Your task to perform on an android device: Play the last video I watched on Youtube Image 0: 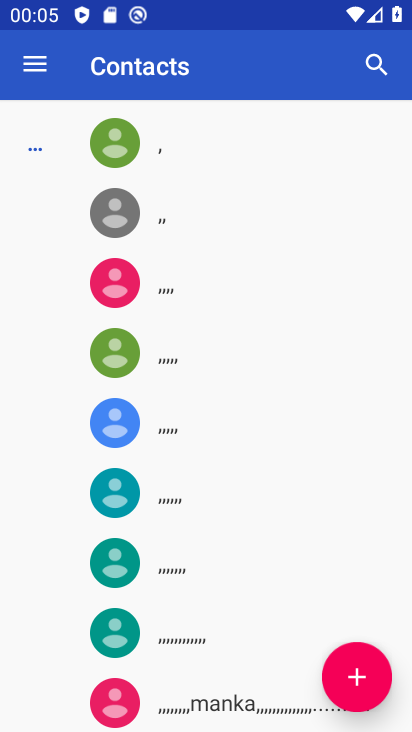
Step 0: press home button
Your task to perform on an android device: Play the last video I watched on Youtube Image 1: 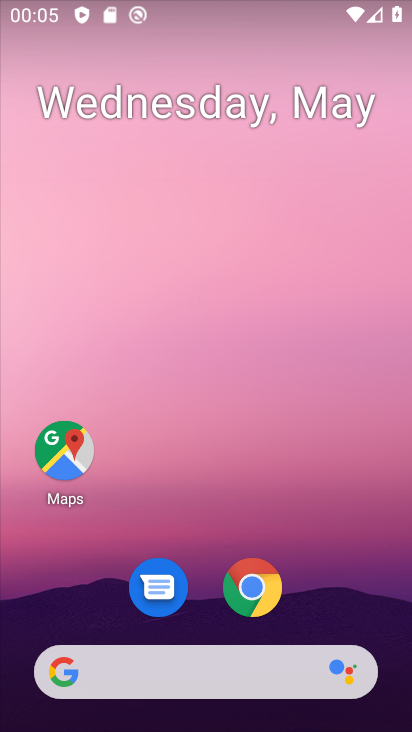
Step 1: drag from (344, 574) to (293, 93)
Your task to perform on an android device: Play the last video I watched on Youtube Image 2: 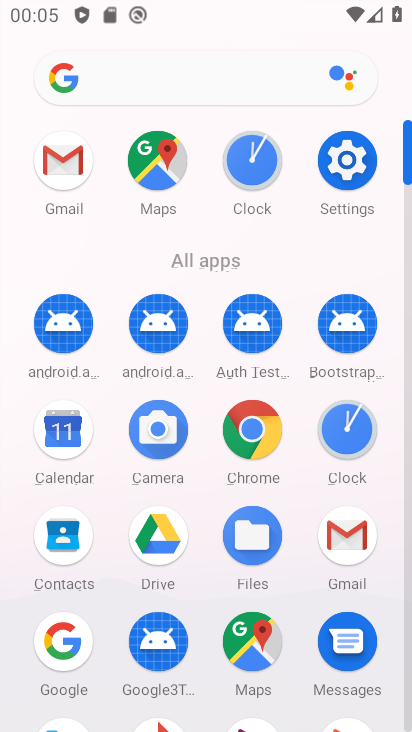
Step 2: drag from (295, 250) to (261, 21)
Your task to perform on an android device: Play the last video I watched on Youtube Image 3: 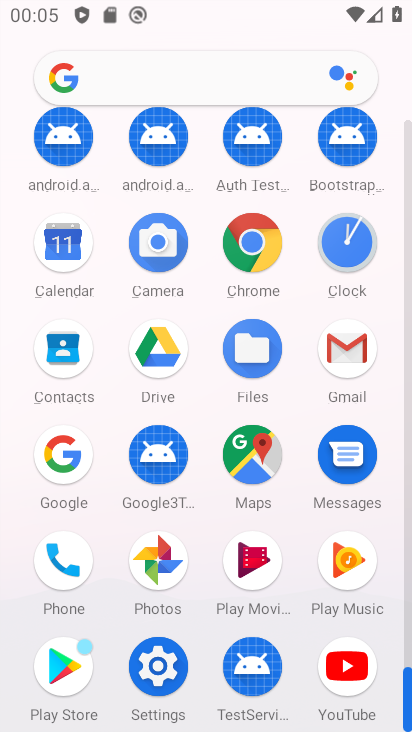
Step 3: click (331, 669)
Your task to perform on an android device: Play the last video I watched on Youtube Image 4: 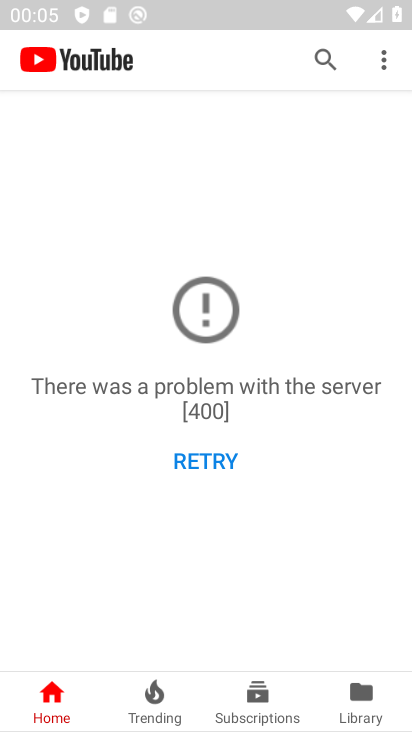
Step 4: click (344, 694)
Your task to perform on an android device: Play the last video I watched on Youtube Image 5: 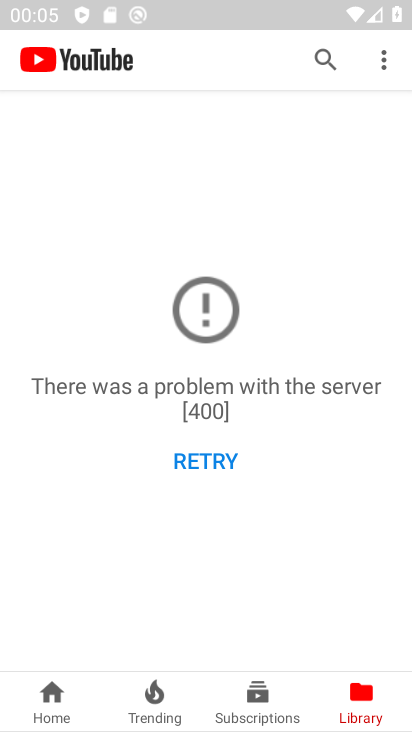
Step 5: click (224, 461)
Your task to perform on an android device: Play the last video I watched on Youtube Image 6: 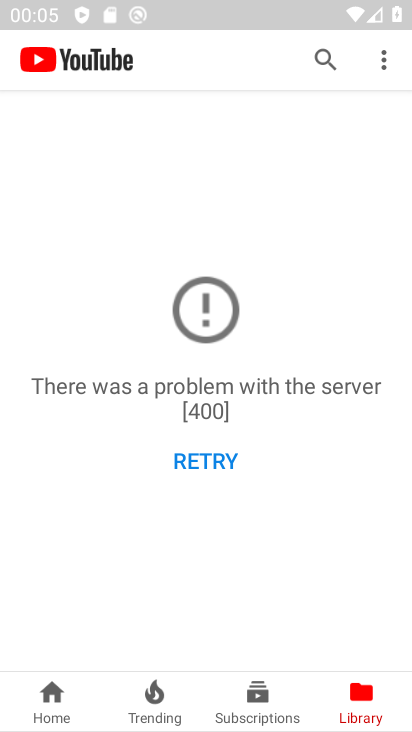
Step 6: click (224, 461)
Your task to perform on an android device: Play the last video I watched on Youtube Image 7: 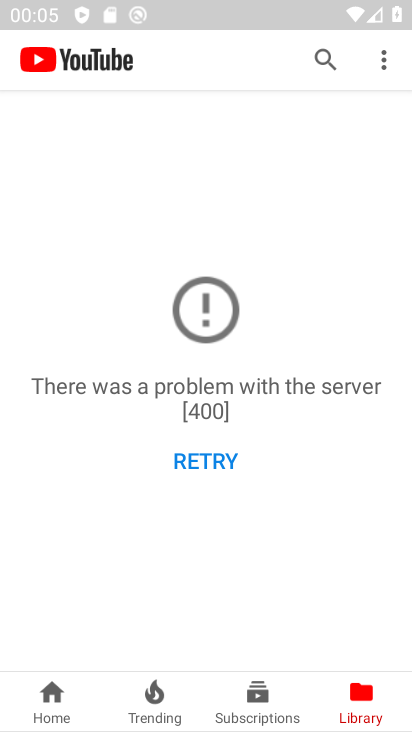
Step 7: click (224, 461)
Your task to perform on an android device: Play the last video I watched on Youtube Image 8: 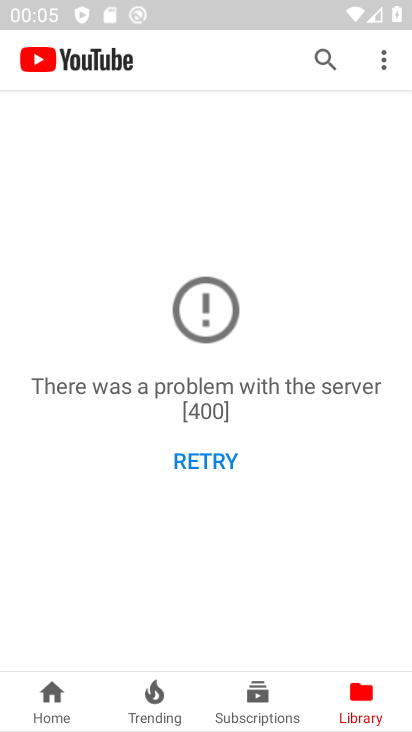
Step 8: task complete